Your task to perform on an android device: Is it going to rain today? Image 0: 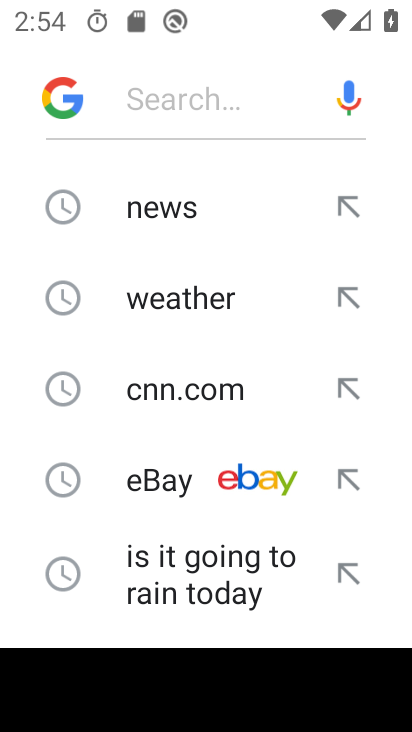
Step 0: press back button
Your task to perform on an android device: Is it going to rain today? Image 1: 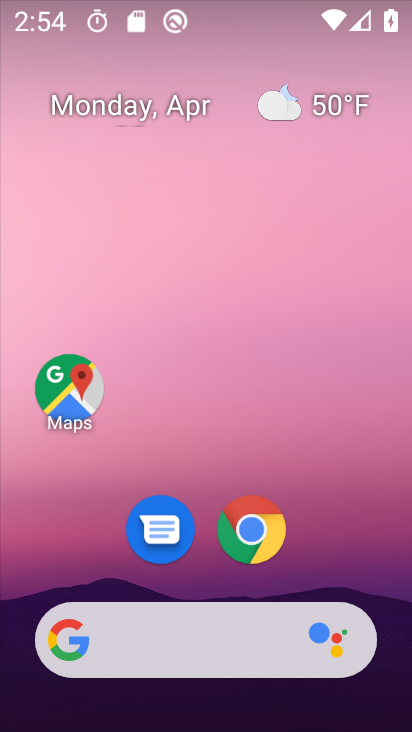
Step 1: click (340, 99)
Your task to perform on an android device: Is it going to rain today? Image 2: 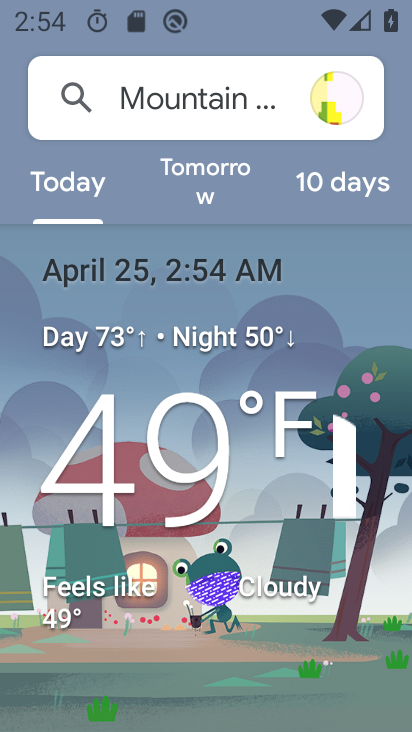
Step 2: task complete